Your task to perform on an android device: refresh tabs in the chrome app Image 0: 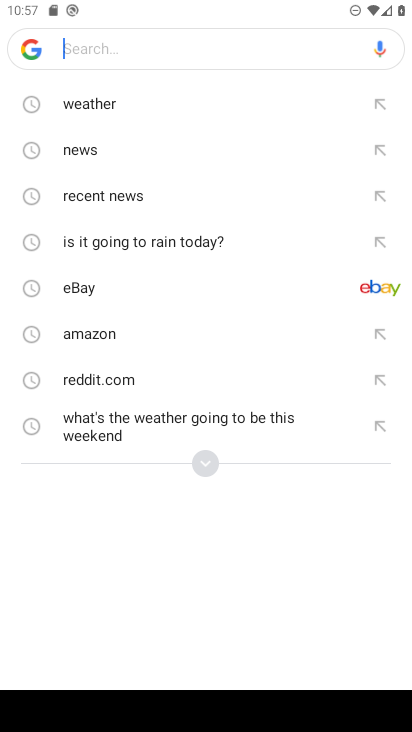
Step 0: press home button
Your task to perform on an android device: refresh tabs in the chrome app Image 1: 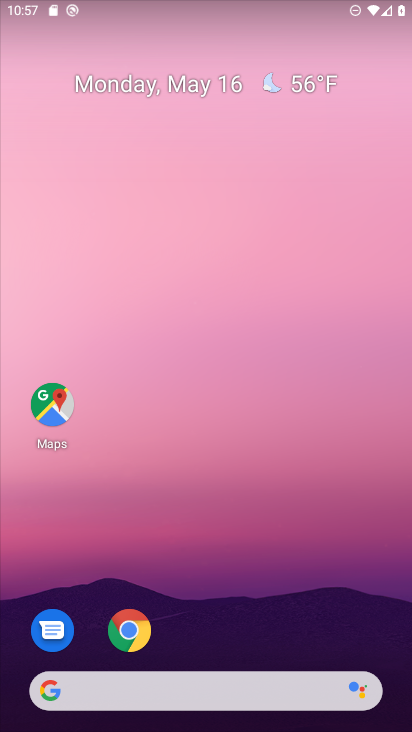
Step 1: click (128, 619)
Your task to perform on an android device: refresh tabs in the chrome app Image 2: 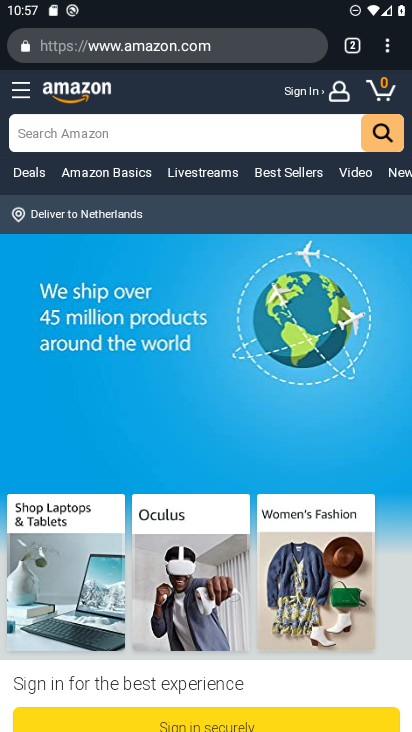
Step 2: click (387, 45)
Your task to perform on an android device: refresh tabs in the chrome app Image 3: 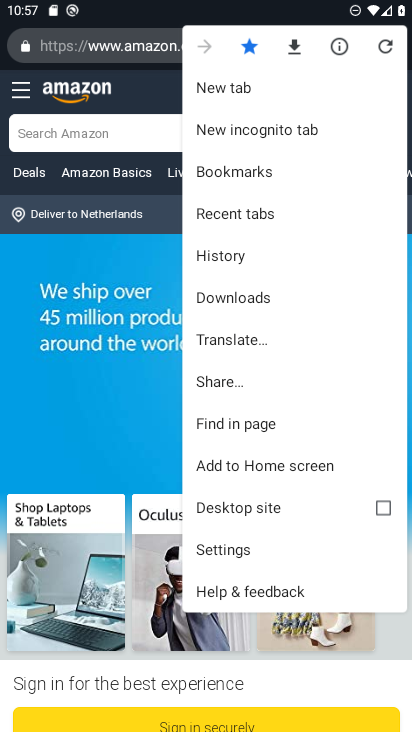
Step 3: click (387, 45)
Your task to perform on an android device: refresh tabs in the chrome app Image 4: 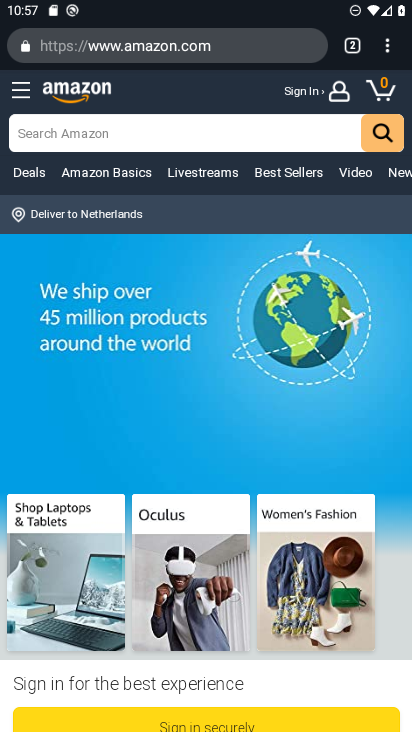
Step 4: task complete